Your task to perform on an android device: Empty the shopping cart on walmart. Add energizer triple a to the cart on walmart, then select checkout. Image 0: 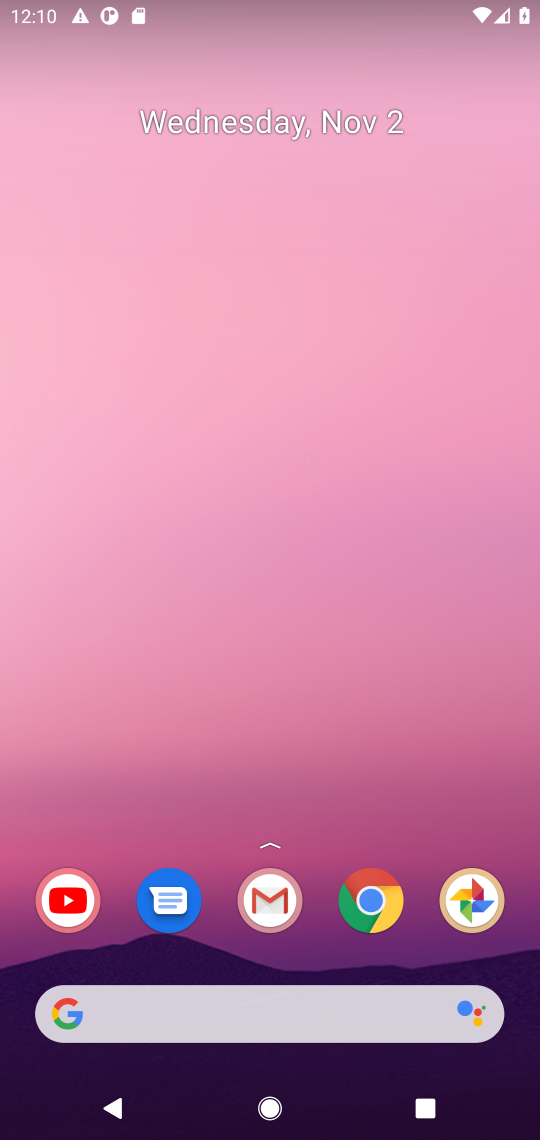
Step 0: click (384, 898)
Your task to perform on an android device: Empty the shopping cart on walmart. Add energizer triple a to the cart on walmart, then select checkout. Image 1: 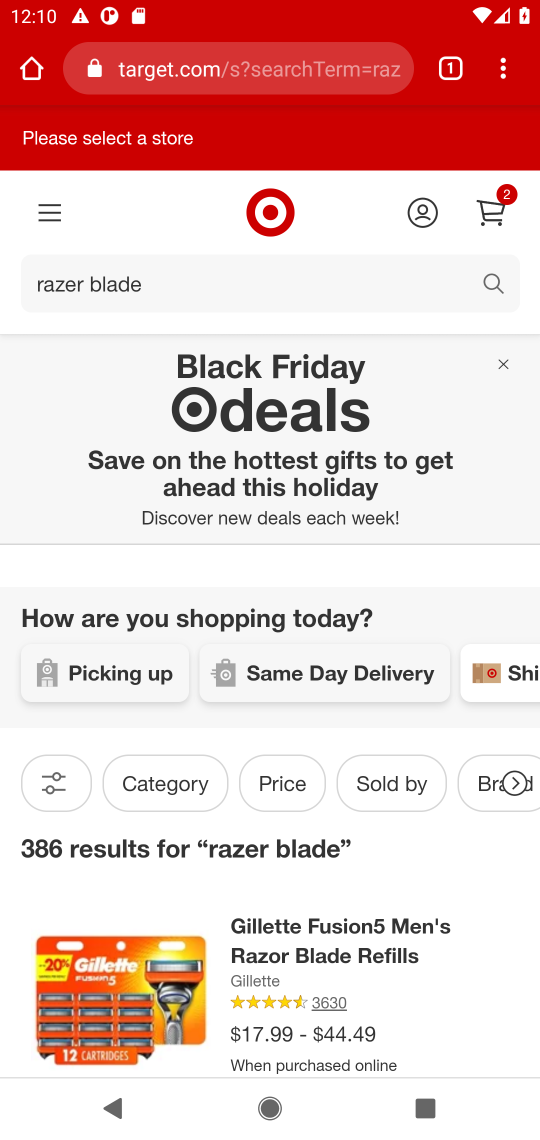
Step 1: click (106, 76)
Your task to perform on an android device: Empty the shopping cart on walmart. Add energizer triple a to the cart on walmart, then select checkout. Image 2: 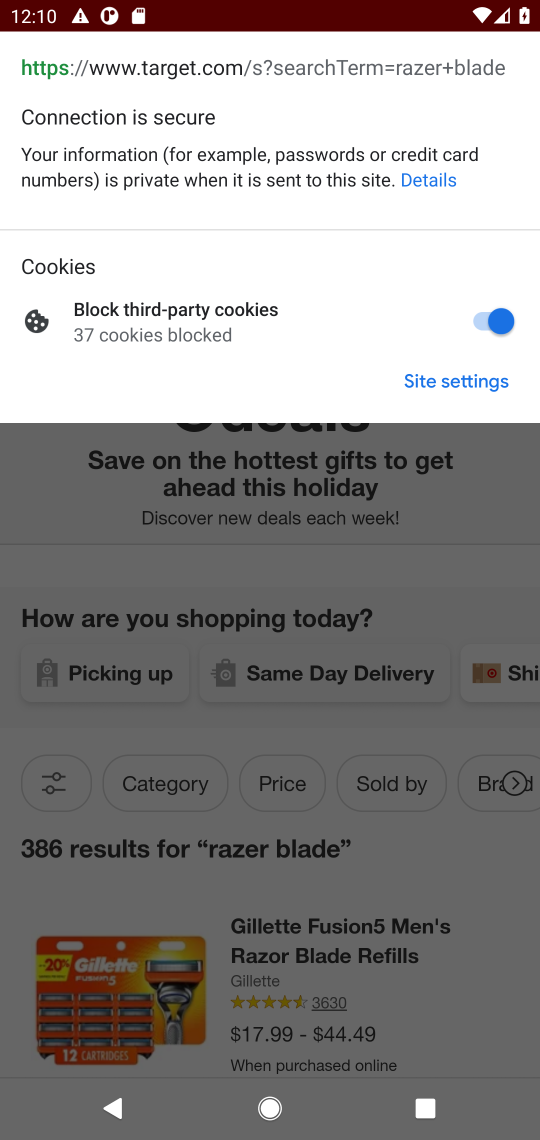
Step 2: press back button
Your task to perform on an android device: Empty the shopping cart on walmart. Add energizer triple a to the cart on walmart, then select checkout. Image 3: 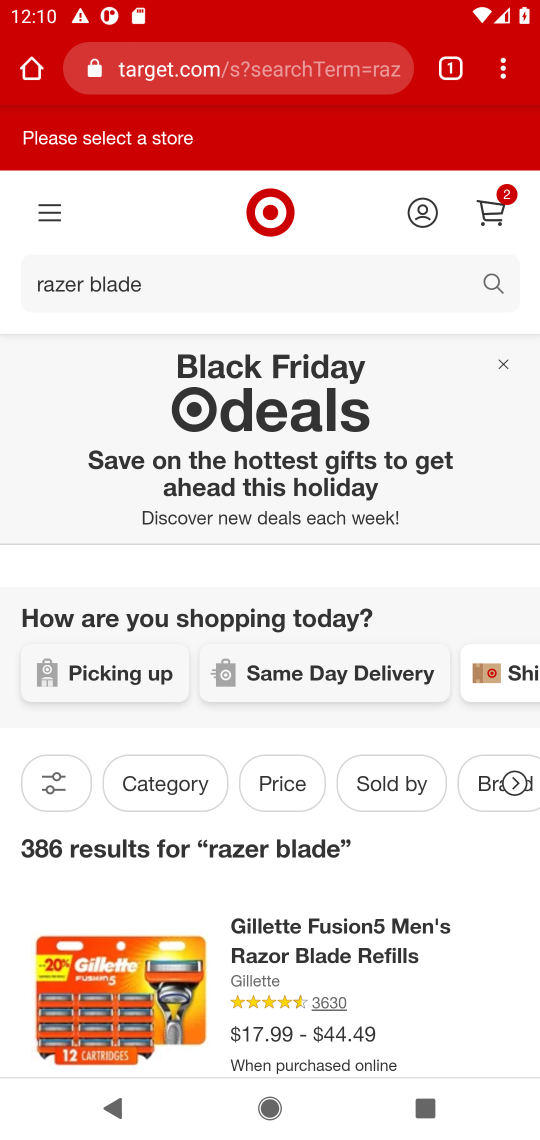
Step 3: click (169, 85)
Your task to perform on an android device: Empty the shopping cart on walmart. Add energizer triple a to the cart on walmart, then select checkout. Image 4: 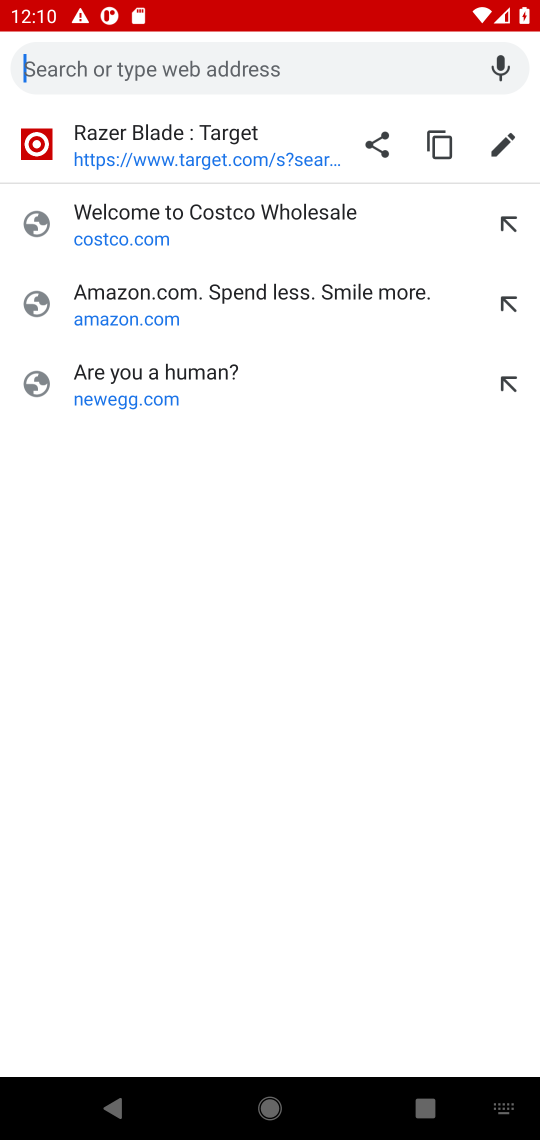
Step 4: type "walmart"
Your task to perform on an android device: Empty the shopping cart on walmart. Add energizer triple a to the cart on walmart, then select checkout. Image 5: 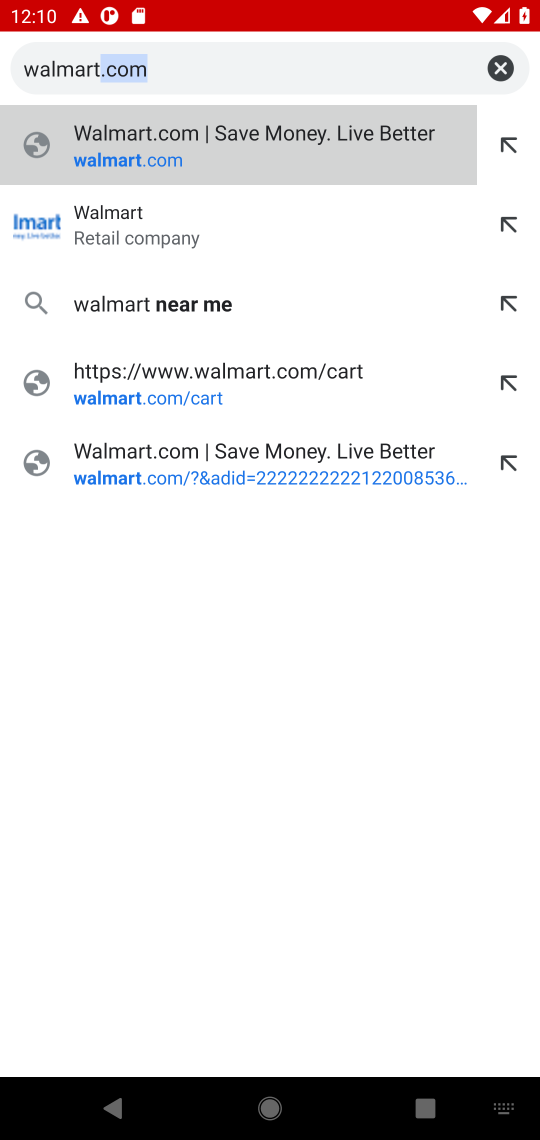
Step 5: click (190, 212)
Your task to perform on an android device: Empty the shopping cart on walmart. Add energizer triple a to the cart on walmart, then select checkout. Image 6: 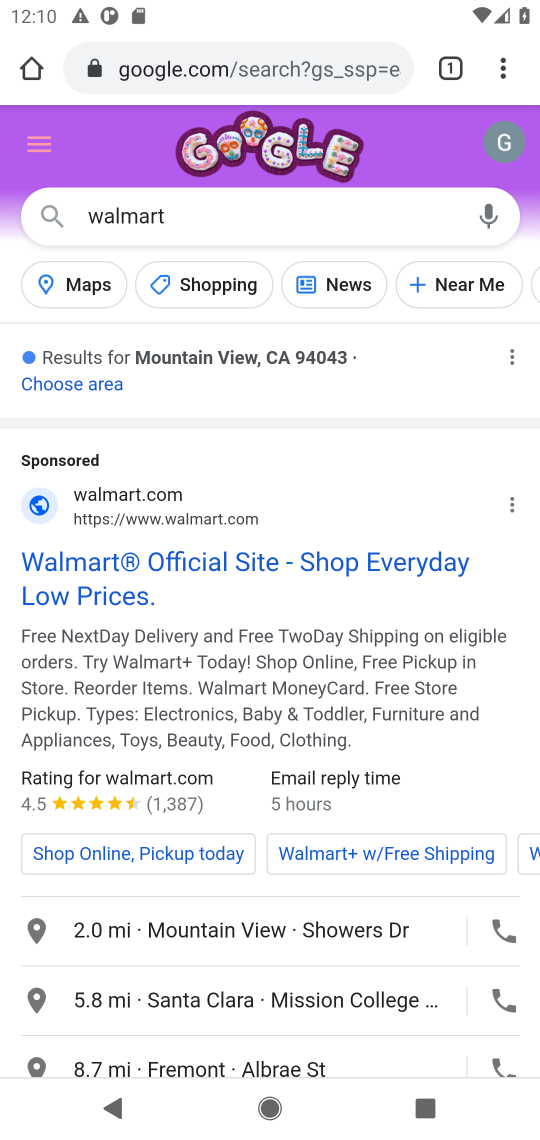
Step 6: click (75, 578)
Your task to perform on an android device: Empty the shopping cart on walmart. Add energizer triple a to the cart on walmart, then select checkout. Image 7: 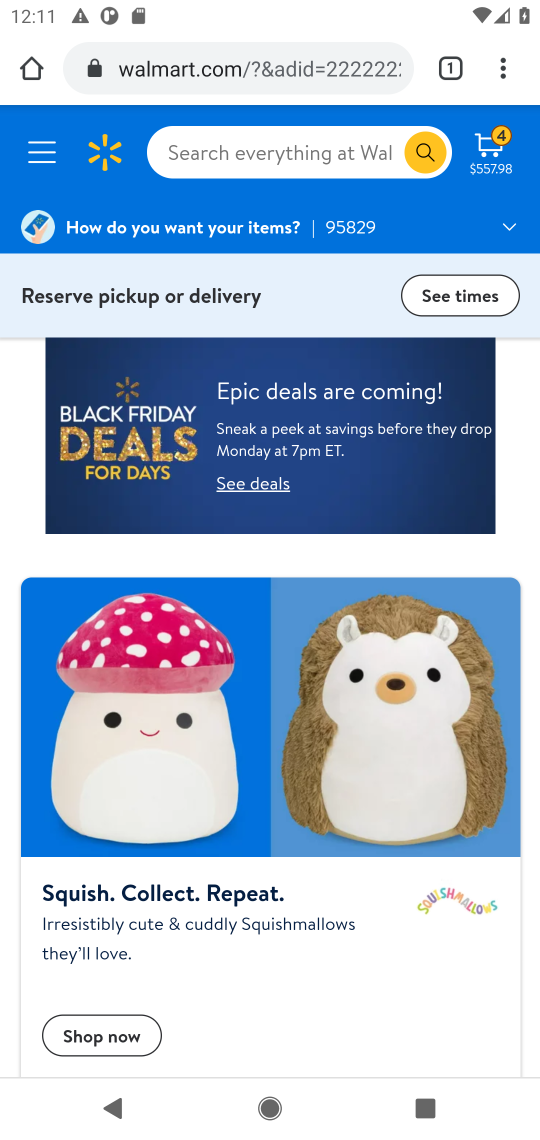
Step 7: click (492, 125)
Your task to perform on an android device: Empty the shopping cart on walmart. Add energizer triple a to the cart on walmart, then select checkout. Image 8: 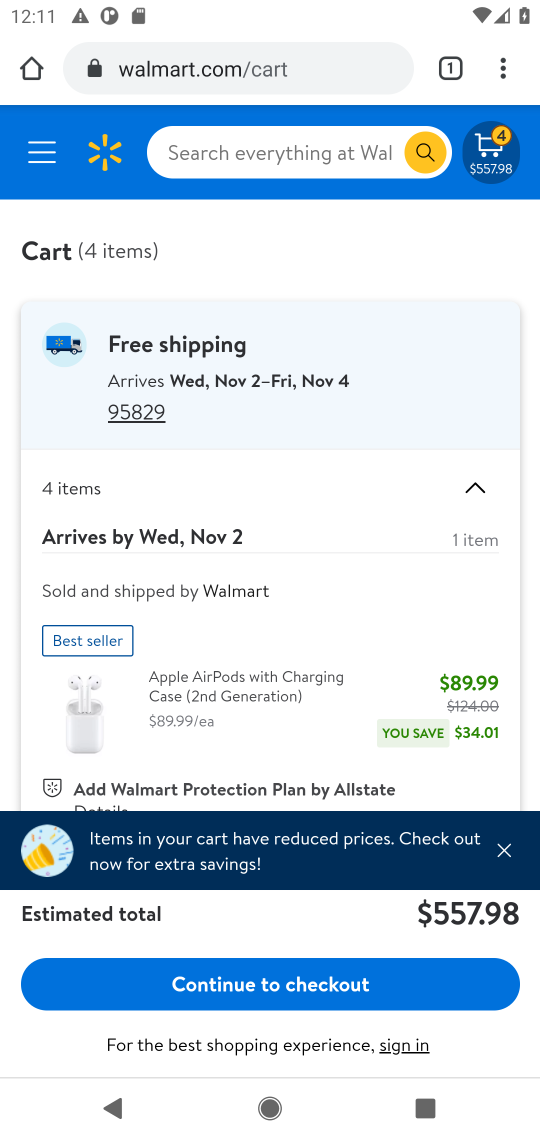
Step 8: drag from (340, 653) to (391, 222)
Your task to perform on an android device: Empty the shopping cart on walmart. Add energizer triple a to the cart on walmart, then select checkout. Image 9: 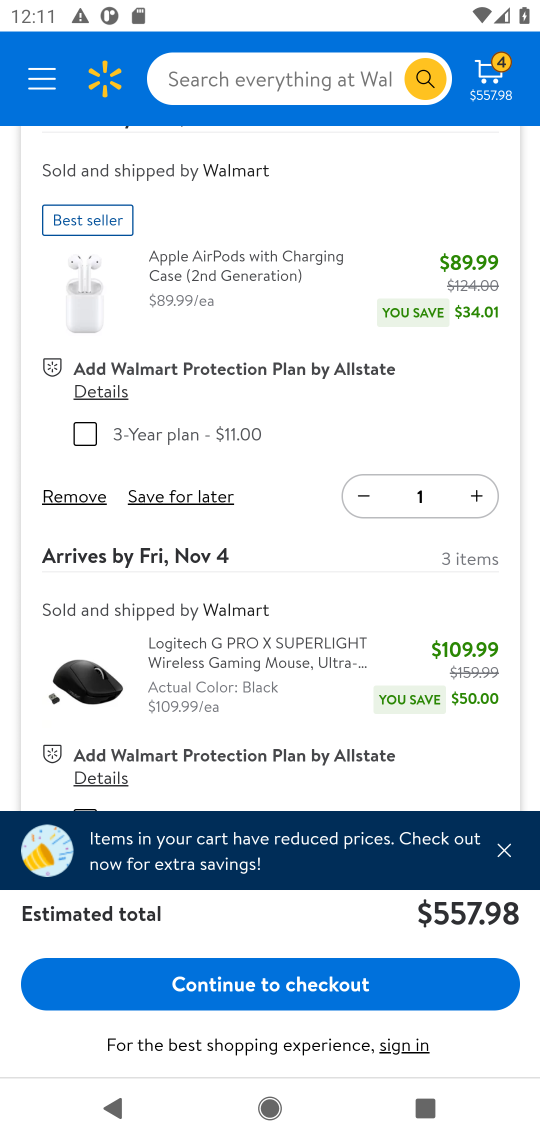
Step 9: click (498, 855)
Your task to perform on an android device: Empty the shopping cart on walmart. Add energizer triple a to the cart on walmart, then select checkout. Image 10: 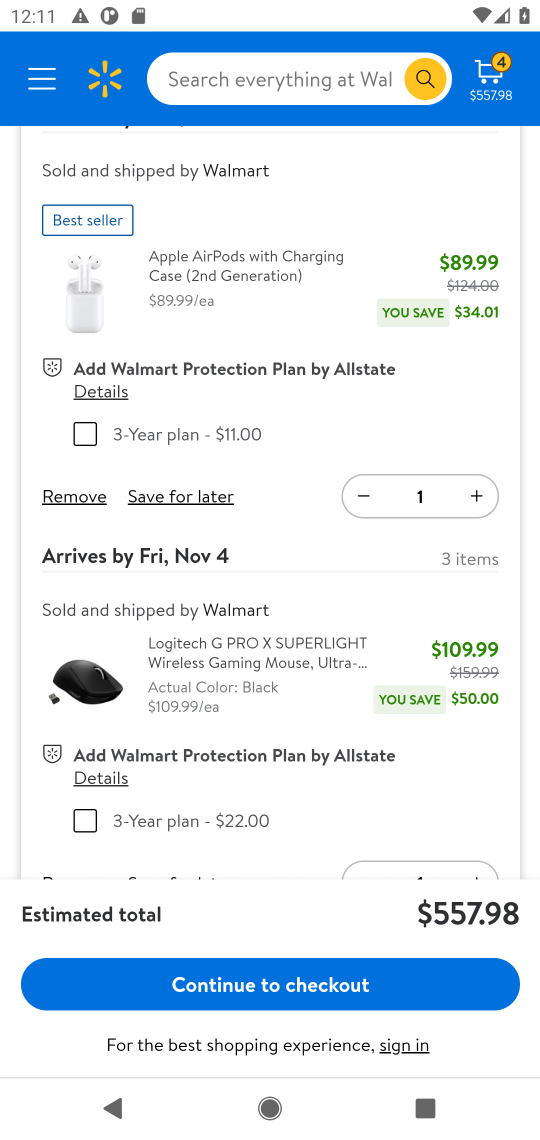
Step 10: click (80, 494)
Your task to perform on an android device: Empty the shopping cart on walmart. Add energizer triple a to the cart on walmart, then select checkout. Image 11: 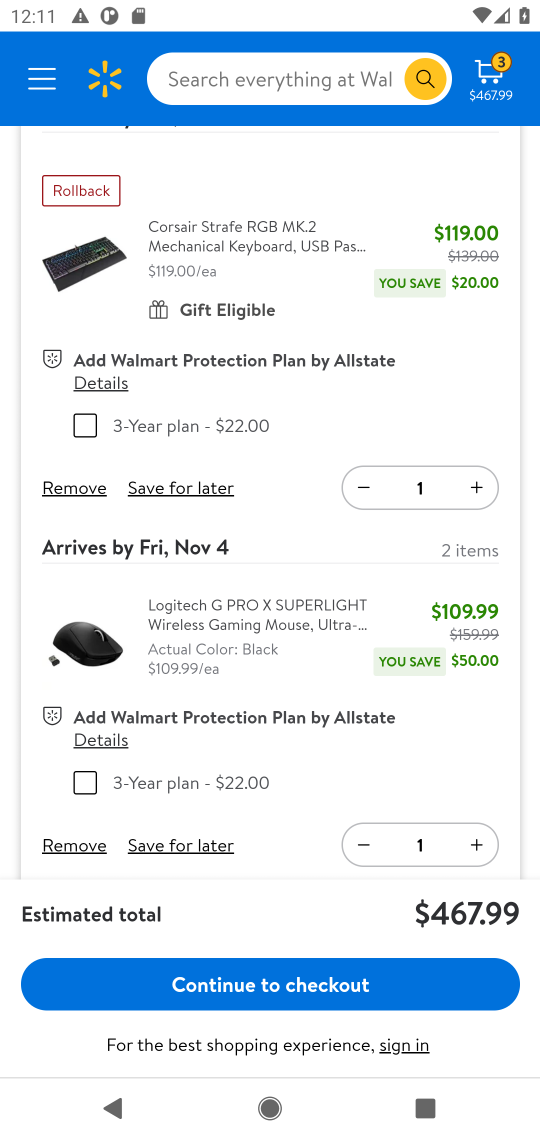
Step 11: click (58, 488)
Your task to perform on an android device: Empty the shopping cart on walmart. Add energizer triple a to the cart on walmart, then select checkout. Image 12: 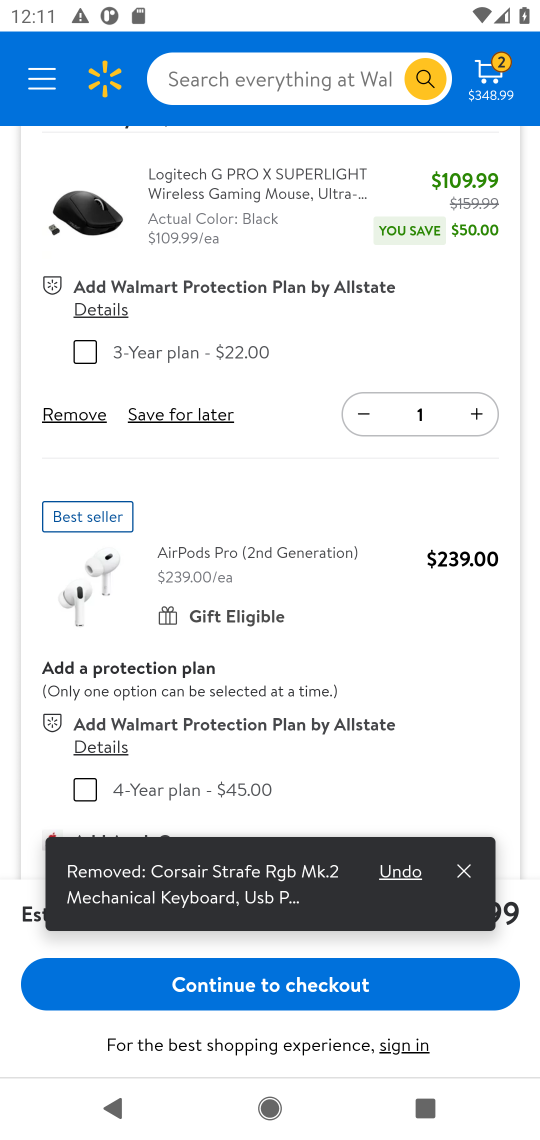
Step 12: click (58, 488)
Your task to perform on an android device: Empty the shopping cart on walmart. Add energizer triple a to the cart on walmart, then select checkout. Image 13: 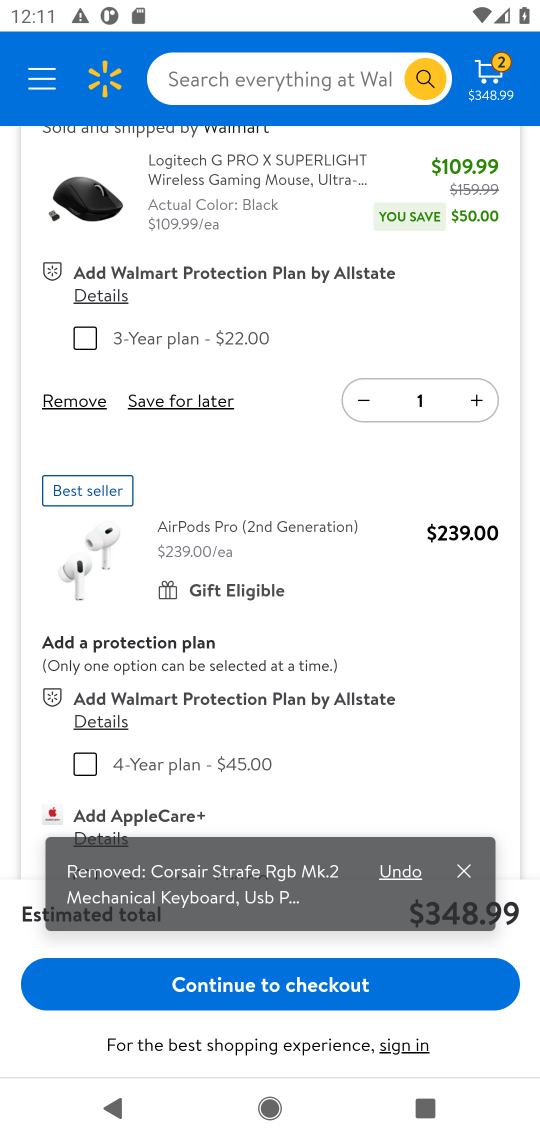
Step 13: click (84, 406)
Your task to perform on an android device: Empty the shopping cart on walmart. Add energizer triple a to the cart on walmart, then select checkout. Image 14: 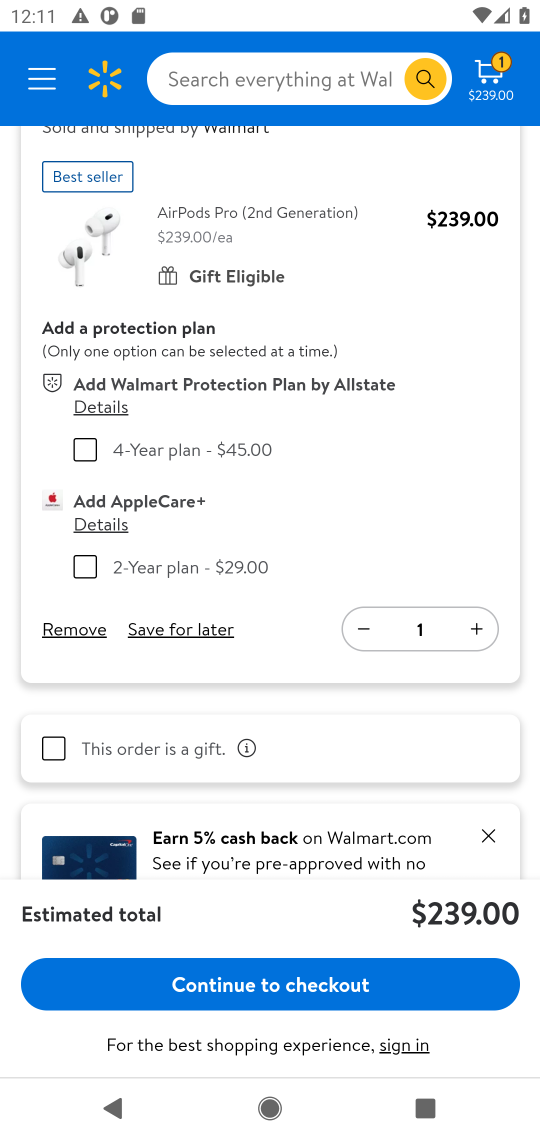
Step 14: click (93, 628)
Your task to perform on an android device: Empty the shopping cart on walmart. Add energizer triple a to the cart on walmart, then select checkout. Image 15: 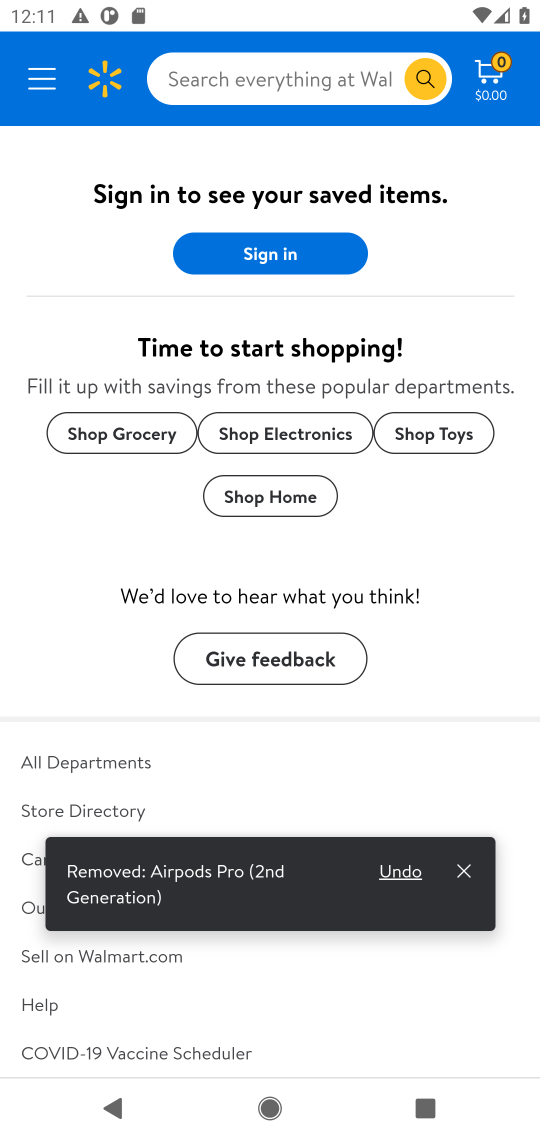
Step 15: click (252, 87)
Your task to perform on an android device: Empty the shopping cart on walmart. Add energizer triple a to the cart on walmart, then select checkout. Image 16: 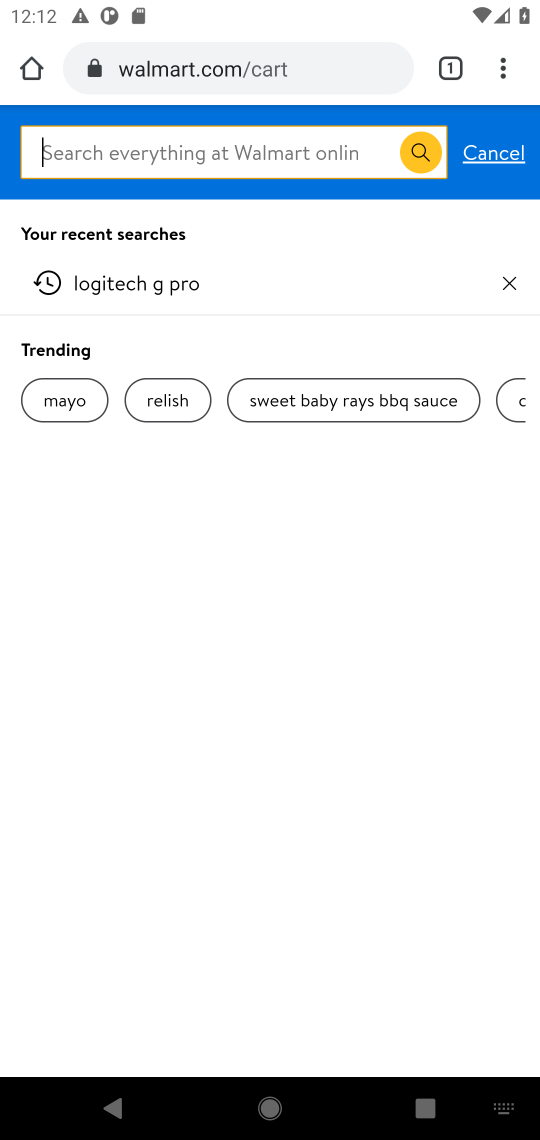
Step 16: type " energizer triple a"
Your task to perform on an android device: Empty the shopping cart on walmart. Add energizer triple a to the cart on walmart, then select checkout. Image 17: 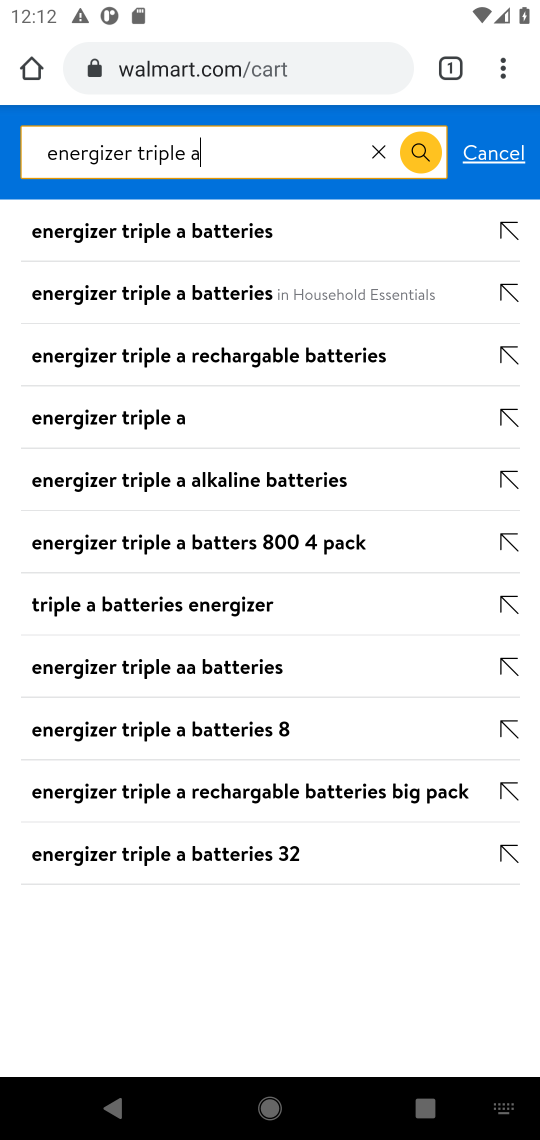
Step 17: type ""
Your task to perform on an android device: Empty the shopping cart on walmart. Add energizer triple a to the cart on walmart, then select checkout. Image 18: 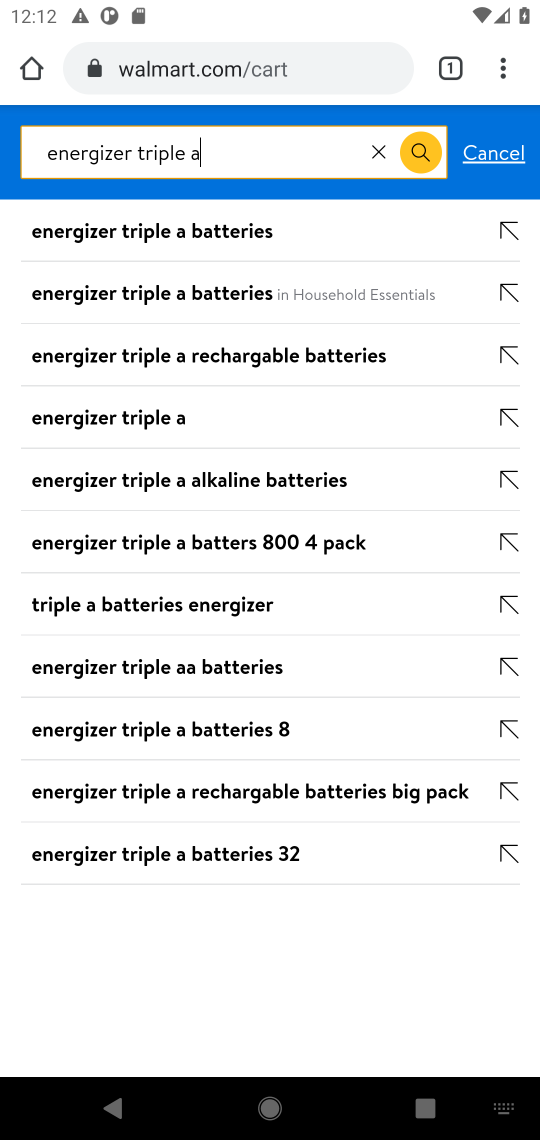
Step 18: click (412, 160)
Your task to perform on an android device: Empty the shopping cart on walmart. Add energizer triple a to the cart on walmart, then select checkout. Image 19: 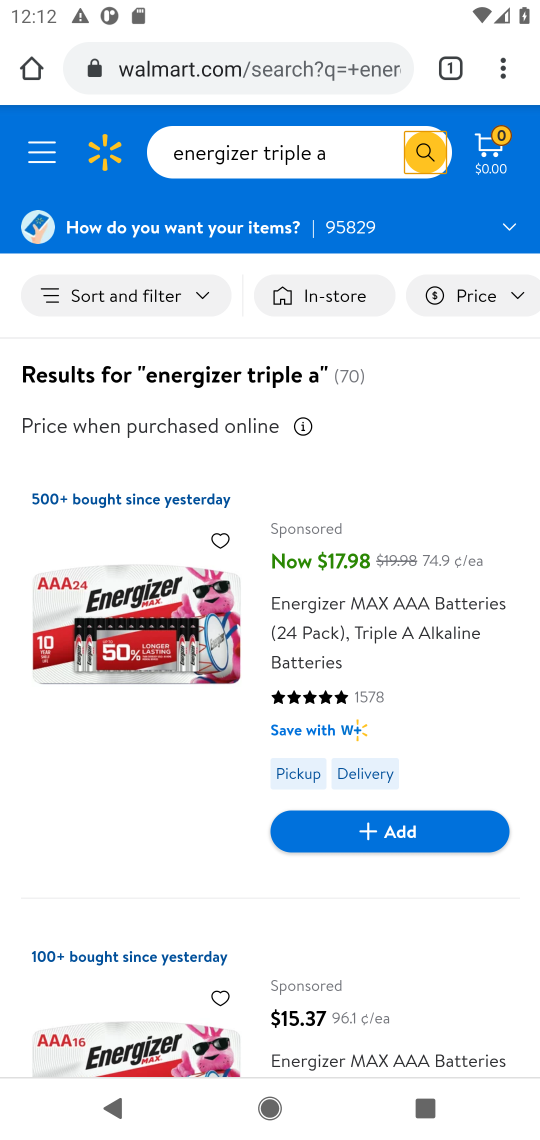
Step 19: click (397, 840)
Your task to perform on an android device: Empty the shopping cart on walmart. Add energizer triple a to the cart on walmart, then select checkout. Image 20: 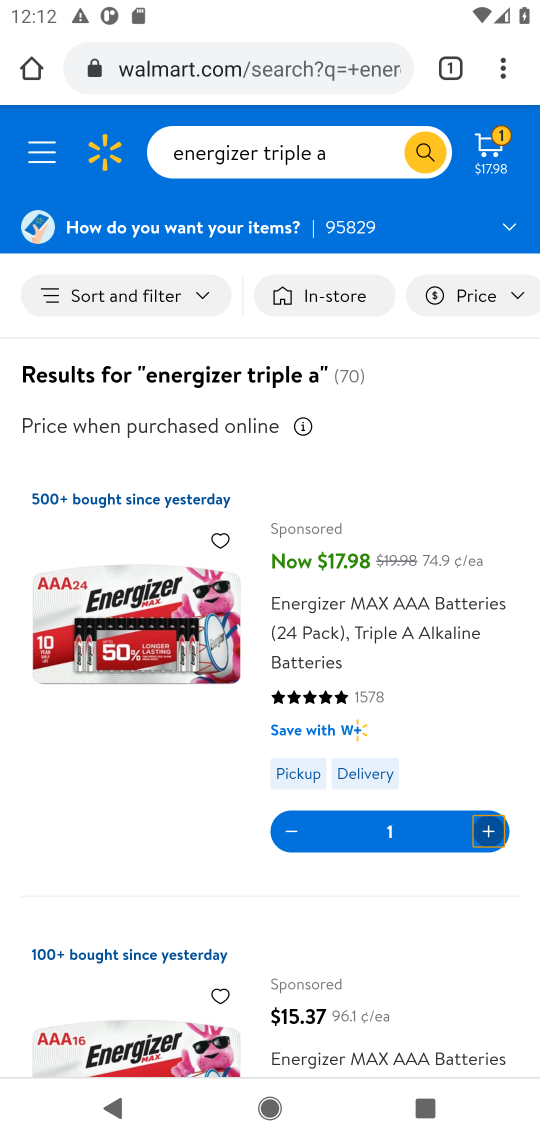
Step 20: click (474, 153)
Your task to perform on an android device: Empty the shopping cart on walmart. Add energizer triple a to the cart on walmart, then select checkout. Image 21: 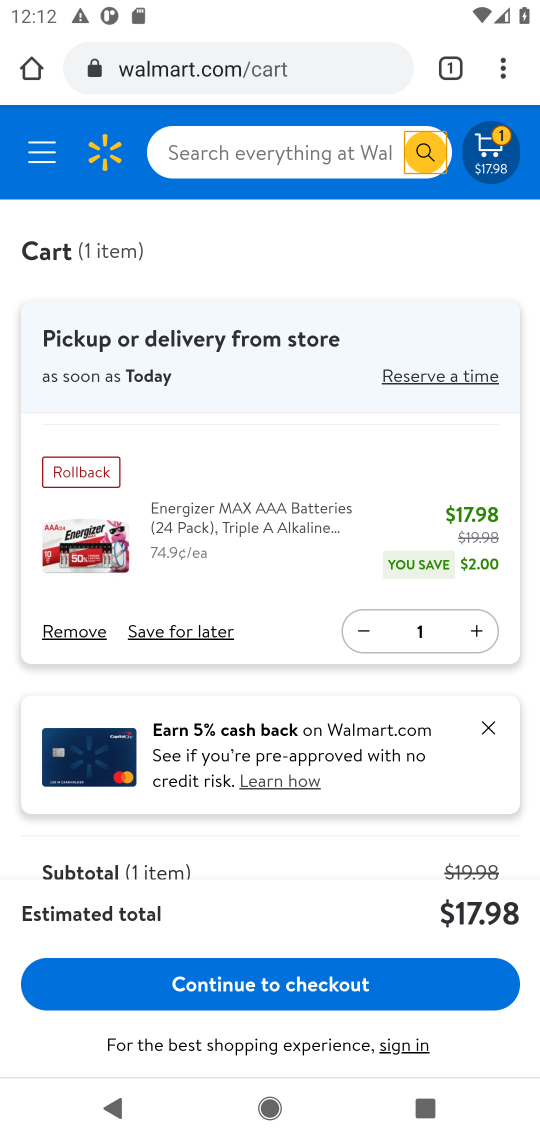
Step 21: click (292, 996)
Your task to perform on an android device: Empty the shopping cart on walmart. Add energizer triple a to the cart on walmart, then select checkout. Image 22: 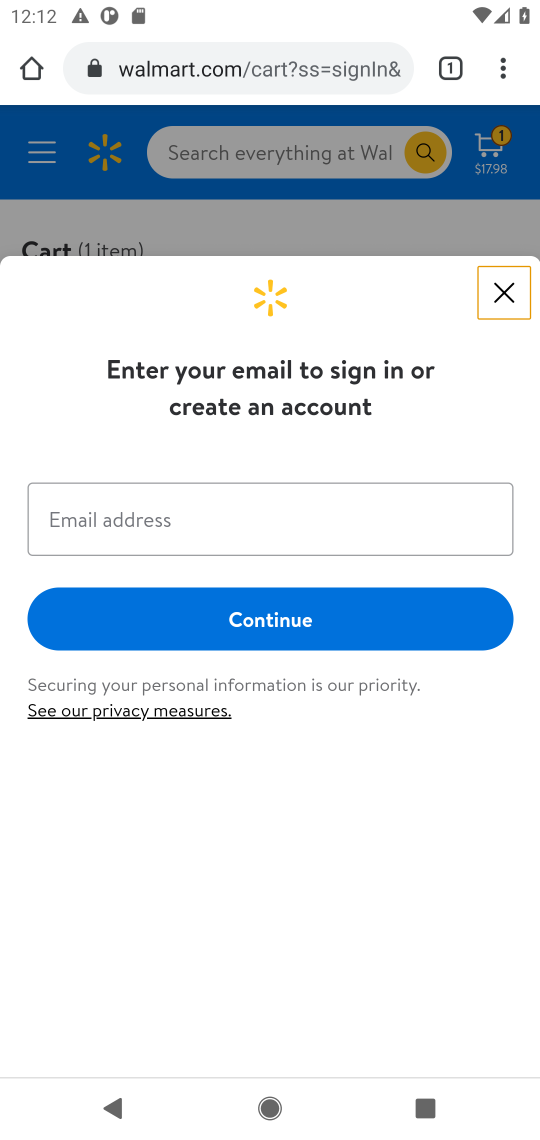
Step 22: task complete